Your task to perform on an android device: Show me popular videos on Youtube Image 0: 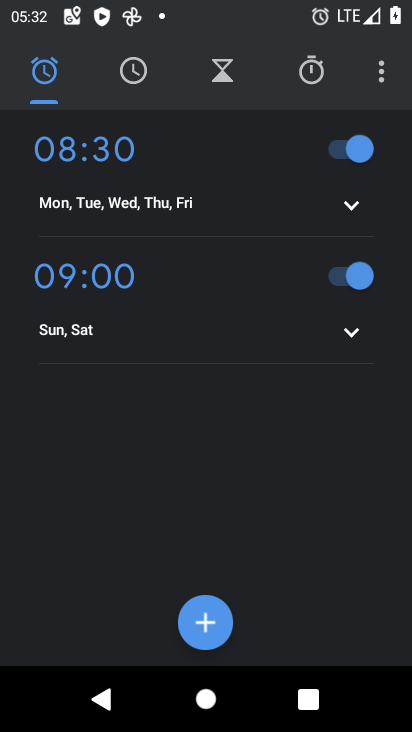
Step 0: press home button
Your task to perform on an android device: Show me popular videos on Youtube Image 1: 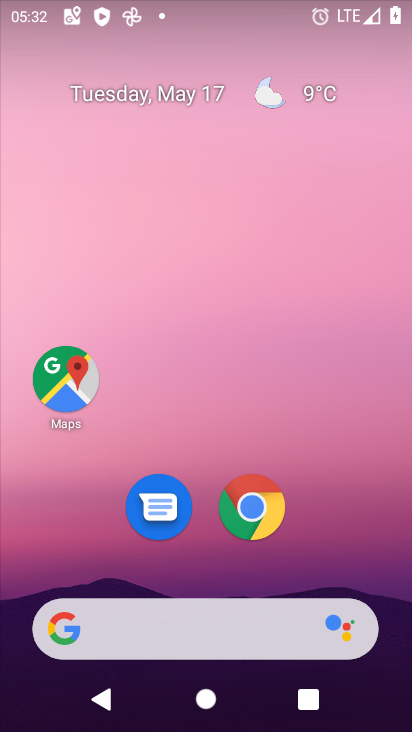
Step 1: drag from (324, 575) to (272, 104)
Your task to perform on an android device: Show me popular videos on Youtube Image 2: 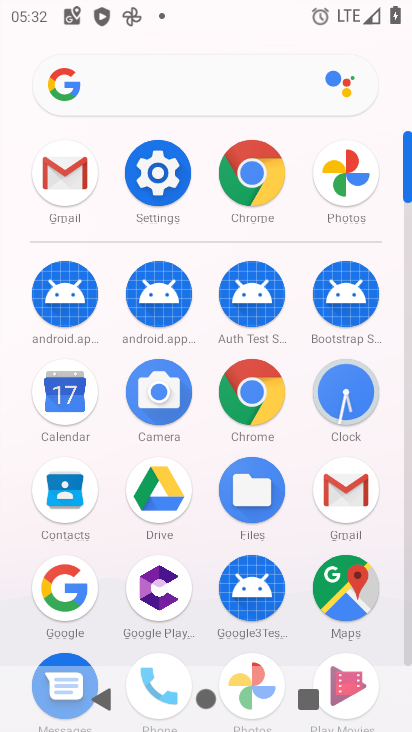
Step 2: drag from (223, 620) to (217, 132)
Your task to perform on an android device: Show me popular videos on Youtube Image 3: 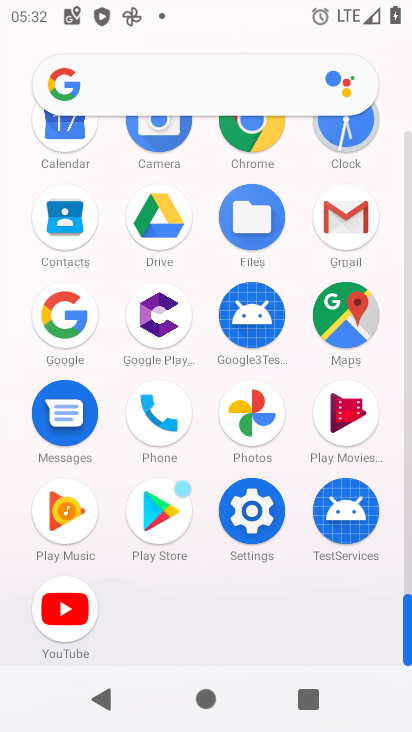
Step 3: click (63, 613)
Your task to perform on an android device: Show me popular videos on Youtube Image 4: 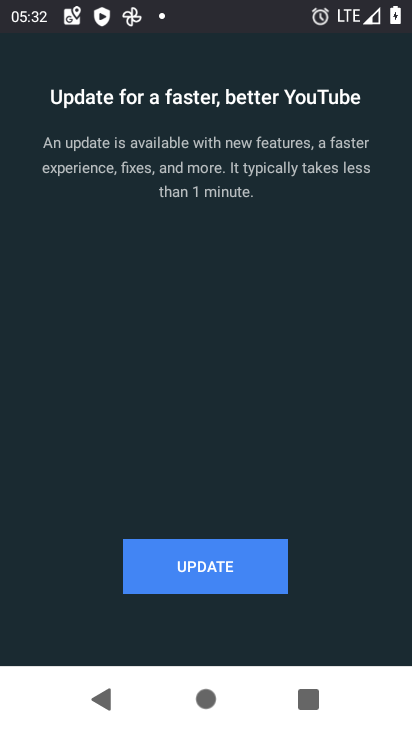
Step 4: click (255, 570)
Your task to perform on an android device: Show me popular videos on Youtube Image 5: 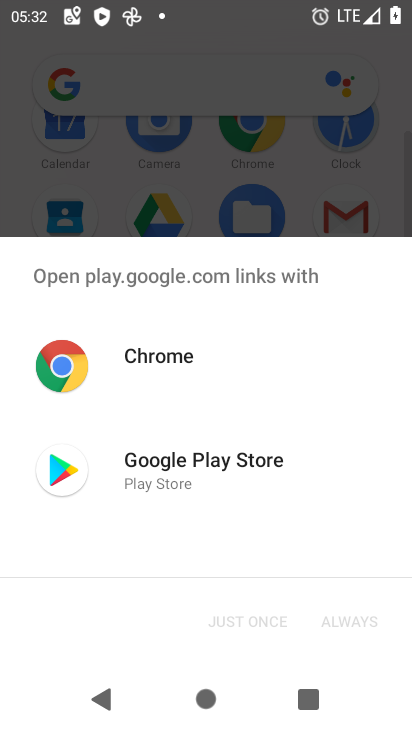
Step 5: click (189, 459)
Your task to perform on an android device: Show me popular videos on Youtube Image 6: 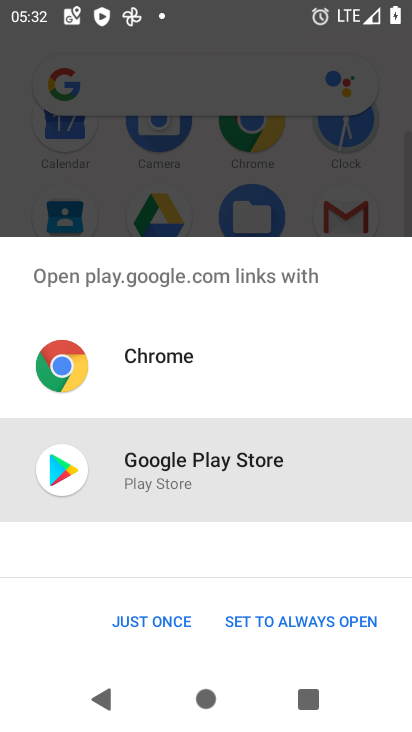
Step 6: click (163, 622)
Your task to perform on an android device: Show me popular videos on Youtube Image 7: 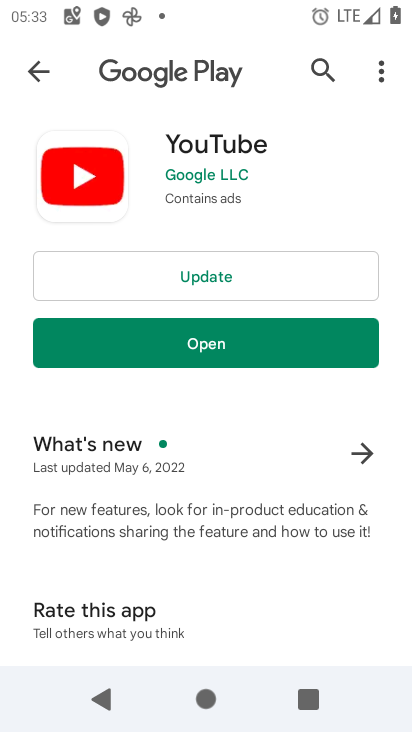
Step 7: click (262, 270)
Your task to perform on an android device: Show me popular videos on Youtube Image 8: 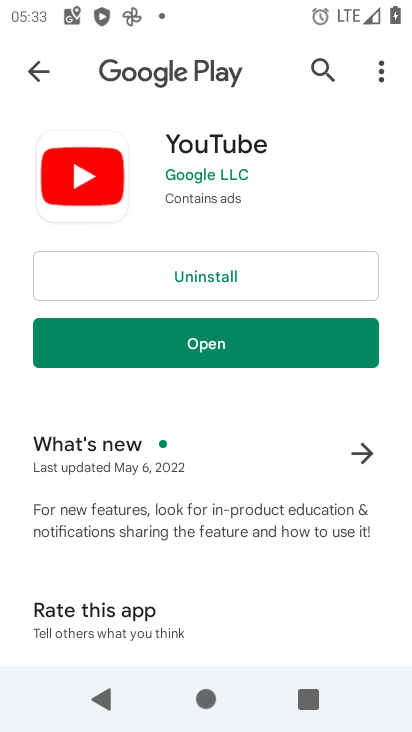
Step 8: click (248, 332)
Your task to perform on an android device: Show me popular videos on Youtube Image 9: 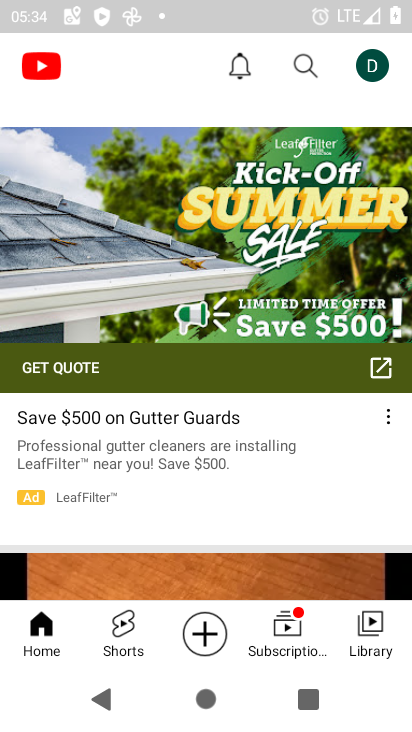
Step 9: drag from (186, 180) to (193, 574)
Your task to perform on an android device: Show me popular videos on Youtube Image 10: 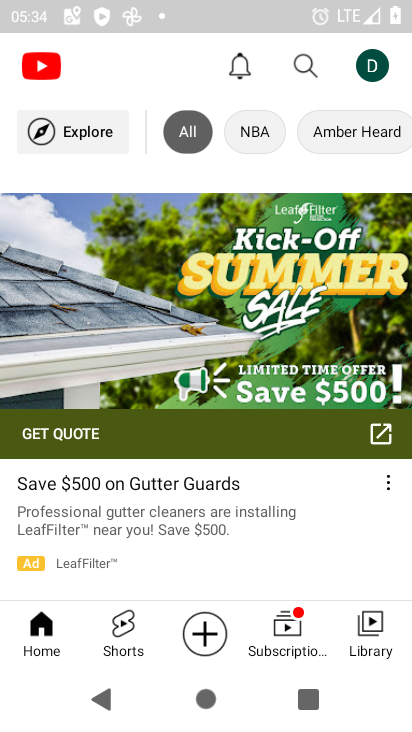
Step 10: click (76, 142)
Your task to perform on an android device: Show me popular videos on Youtube Image 11: 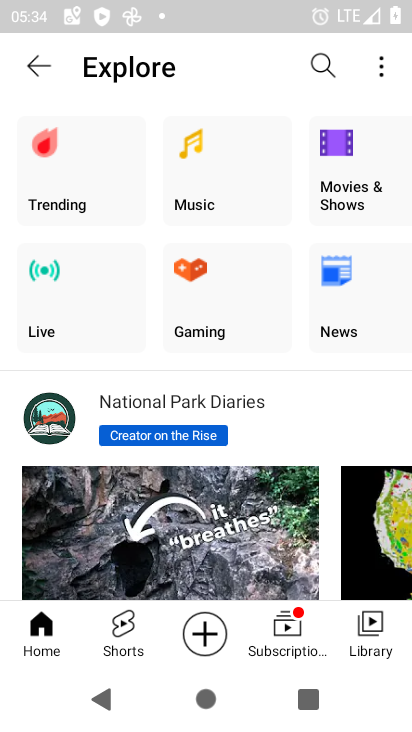
Step 11: click (59, 180)
Your task to perform on an android device: Show me popular videos on Youtube Image 12: 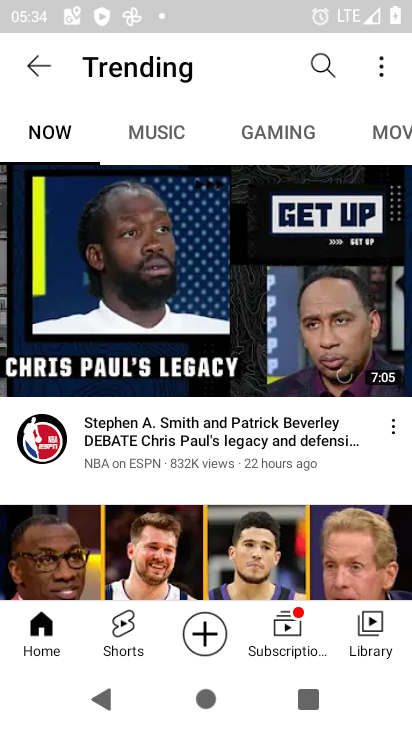
Step 12: task complete